Your task to perform on an android device: Go to Google maps Image 0: 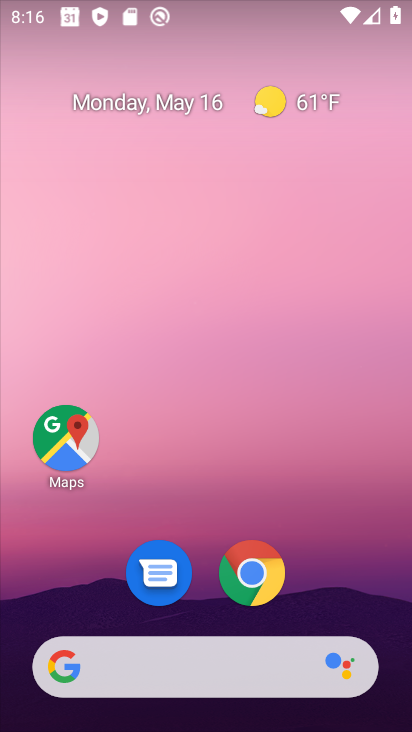
Step 0: drag from (186, 726) to (202, 246)
Your task to perform on an android device: Go to Google maps Image 1: 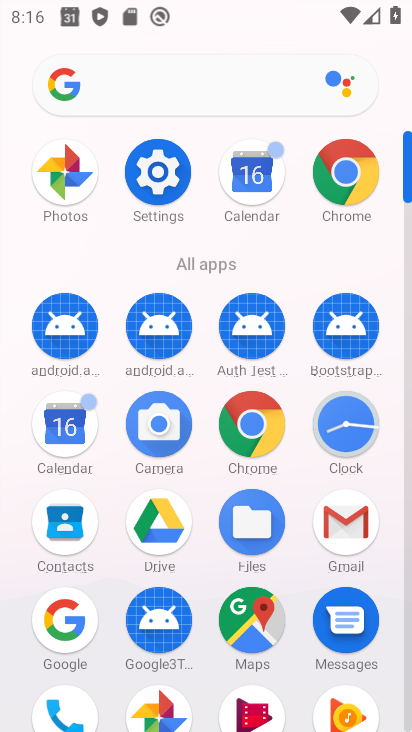
Step 1: click (55, 621)
Your task to perform on an android device: Go to Google maps Image 2: 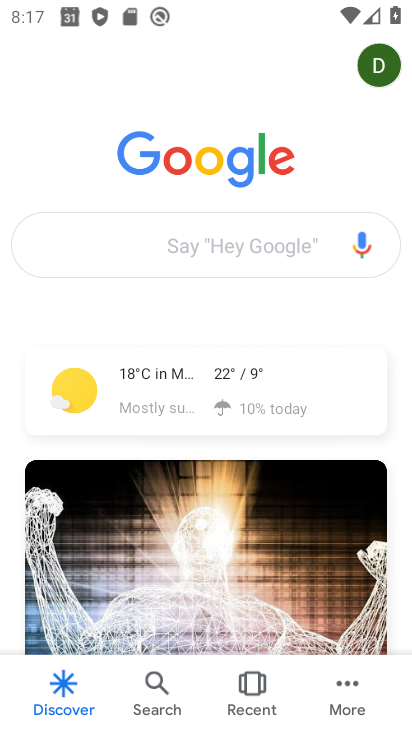
Step 2: press home button
Your task to perform on an android device: Go to Google maps Image 3: 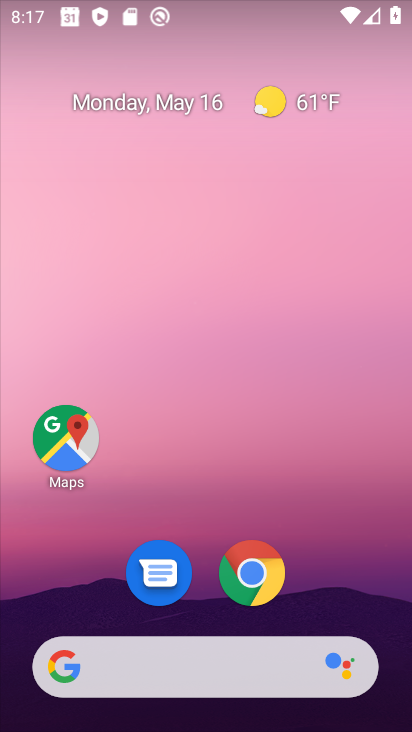
Step 3: drag from (208, 722) to (207, 250)
Your task to perform on an android device: Go to Google maps Image 4: 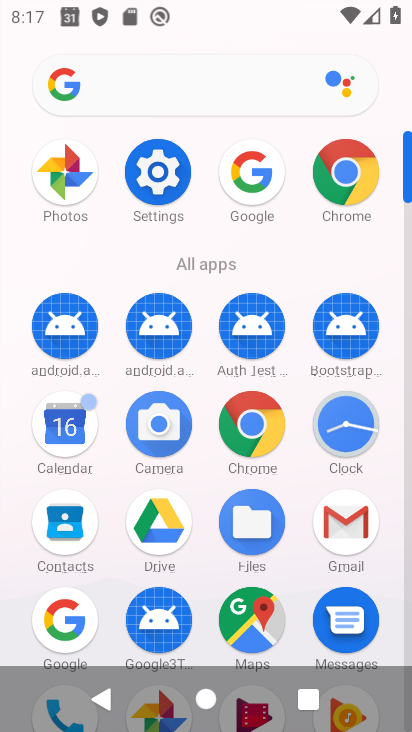
Step 4: click (244, 620)
Your task to perform on an android device: Go to Google maps Image 5: 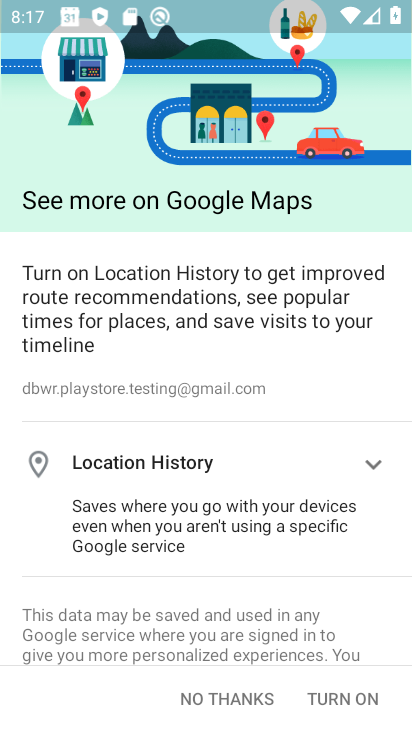
Step 5: click (254, 694)
Your task to perform on an android device: Go to Google maps Image 6: 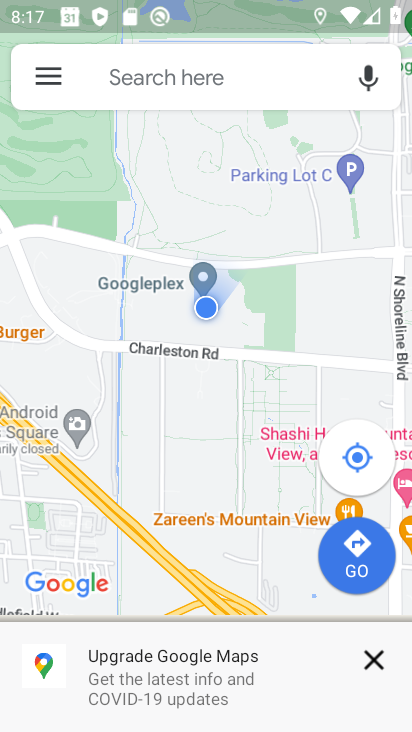
Step 6: task complete